Your task to perform on an android device: turn on showing notifications on the lock screen Image 0: 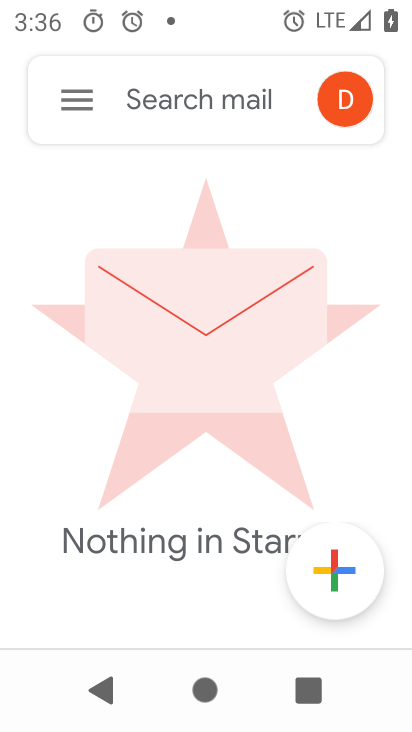
Step 0: press home button
Your task to perform on an android device: turn on showing notifications on the lock screen Image 1: 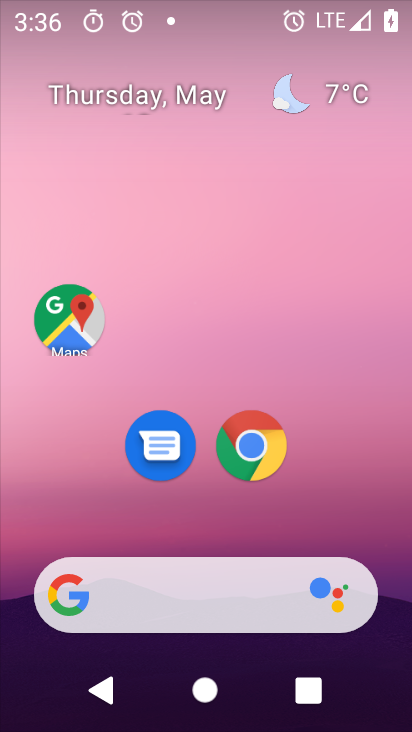
Step 1: drag from (367, 378) to (367, 8)
Your task to perform on an android device: turn on showing notifications on the lock screen Image 2: 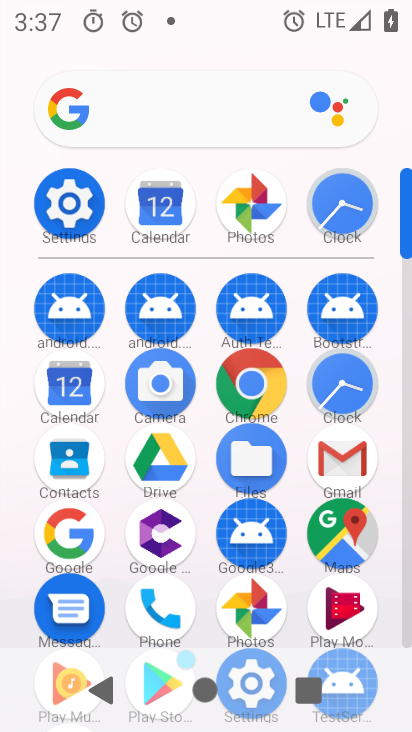
Step 2: click (76, 208)
Your task to perform on an android device: turn on showing notifications on the lock screen Image 3: 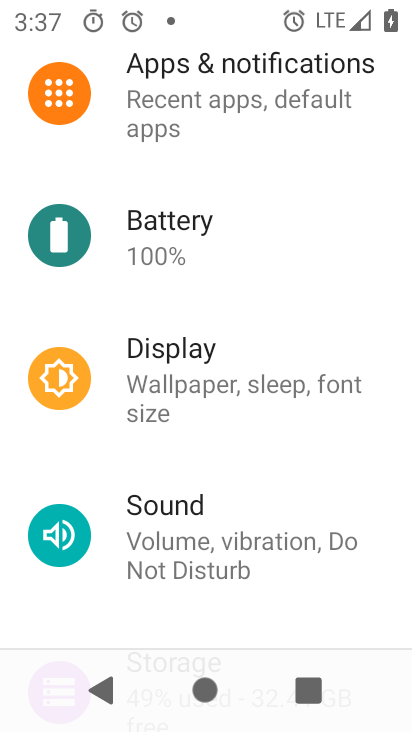
Step 3: click (274, 99)
Your task to perform on an android device: turn on showing notifications on the lock screen Image 4: 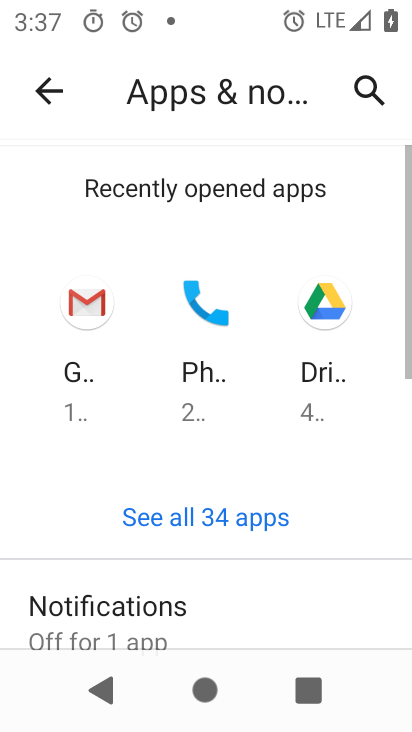
Step 4: click (132, 606)
Your task to perform on an android device: turn on showing notifications on the lock screen Image 5: 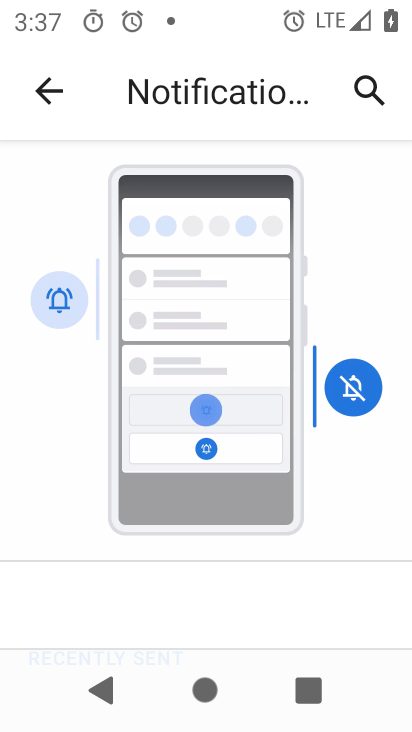
Step 5: drag from (205, 542) to (179, 149)
Your task to perform on an android device: turn on showing notifications on the lock screen Image 6: 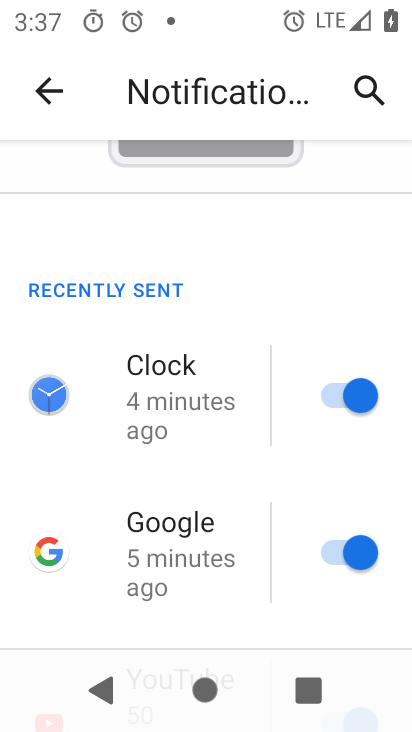
Step 6: drag from (204, 511) to (189, 101)
Your task to perform on an android device: turn on showing notifications on the lock screen Image 7: 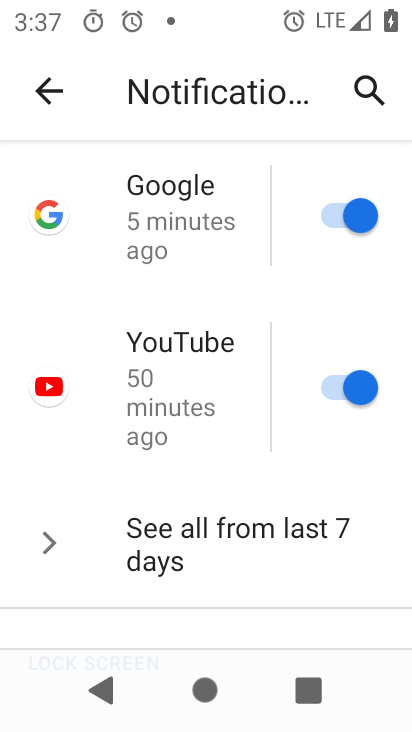
Step 7: drag from (201, 555) to (169, 158)
Your task to perform on an android device: turn on showing notifications on the lock screen Image 8: 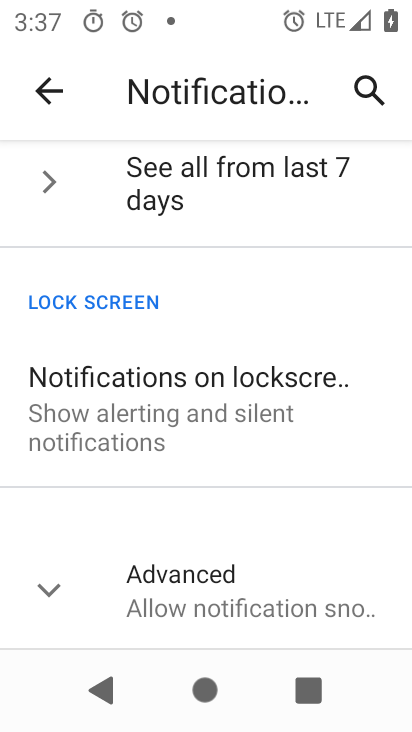
Step 8: click (129, 420)
Your task to perform on an android device: turn on showing notifications on the lock screen Image 9: 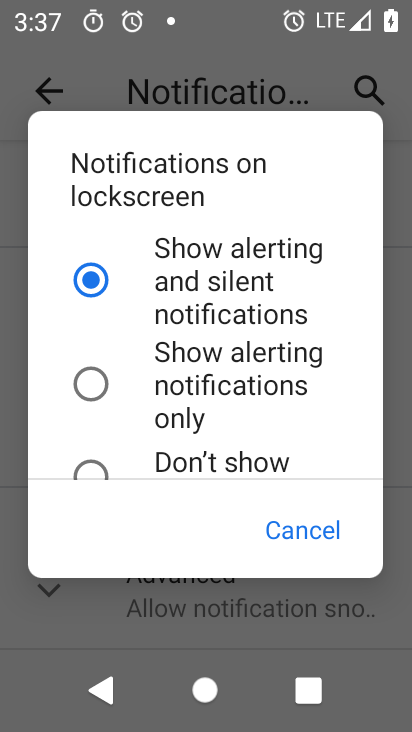
Step 9: task complete